Your task to perform on an android device: Turn off the flashlight Image 0: 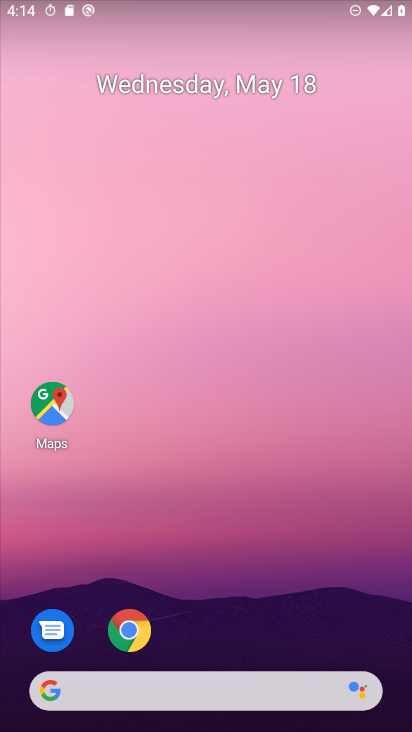
Step 0: press home button
Your task to perform on an android device: Turn off the flashlight Image 1: 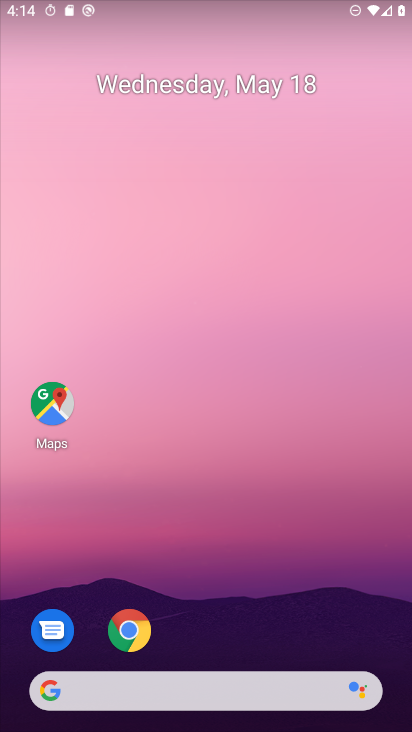
Step 1: drag from (223, 626) to (250, 97)
Your task to perform on an android device: Turn off the flashlight Image 2: 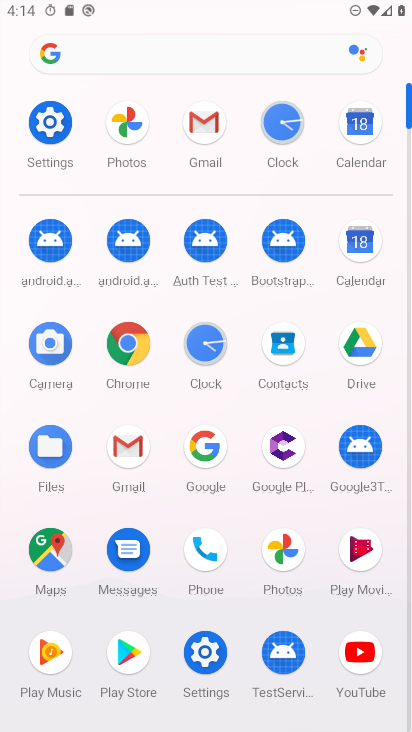
Step 2: click (201, 641)
Your task to perform on an android device: Turn off the flashlight Image 3: 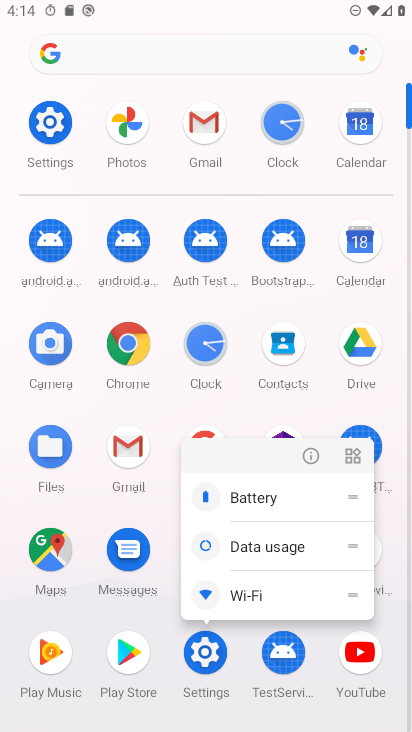
Step 3: click (201, 648)
Your task to perform on an android device: Turn off the flashlight Image 4: 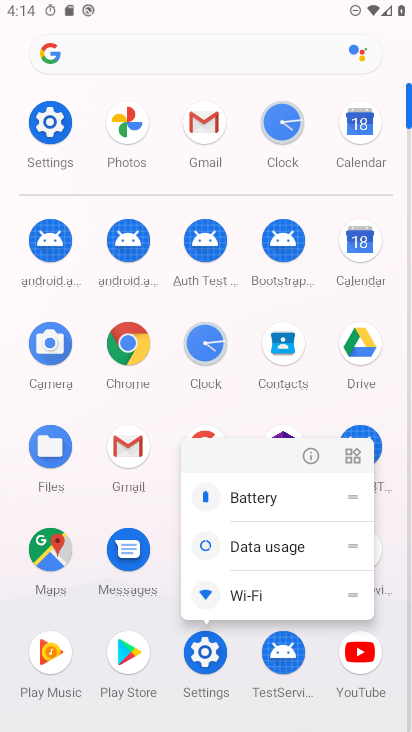
Step 4: click (200, 647)
Your task to perform on an android device: Turn off the flashlight Image 5: 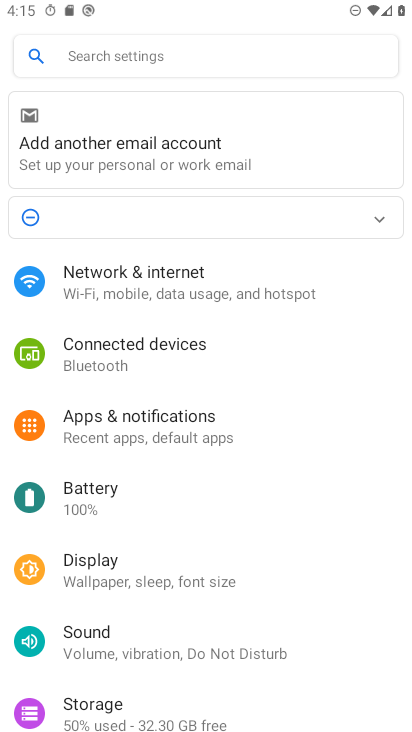
Step 5: click (134, 50)
Your task to perform on an android device: Turn off the flashlight Image 6: 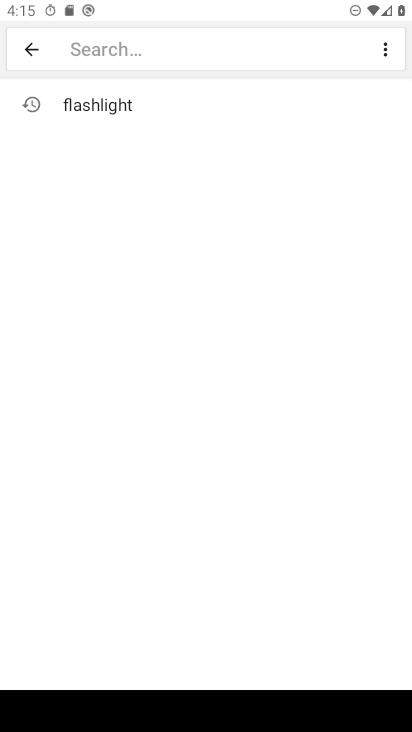
Step 6: click (120, 99)
Your task to perform on an android device: Turn off the flashlight Image 7: 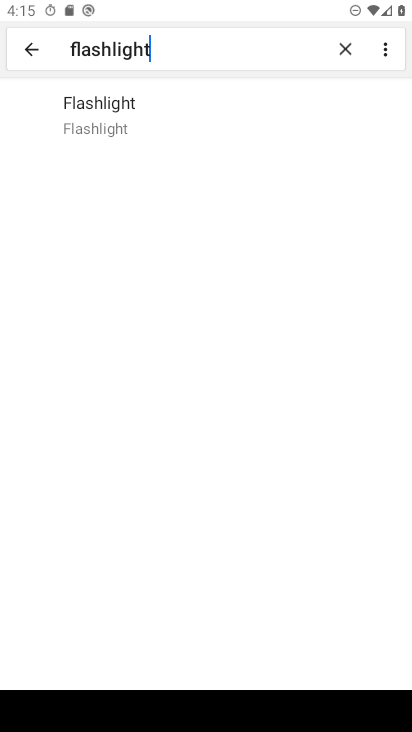
Step 7: click (151, 112)
Your task to perform on an android device: Turn off the flashlight Image 8: 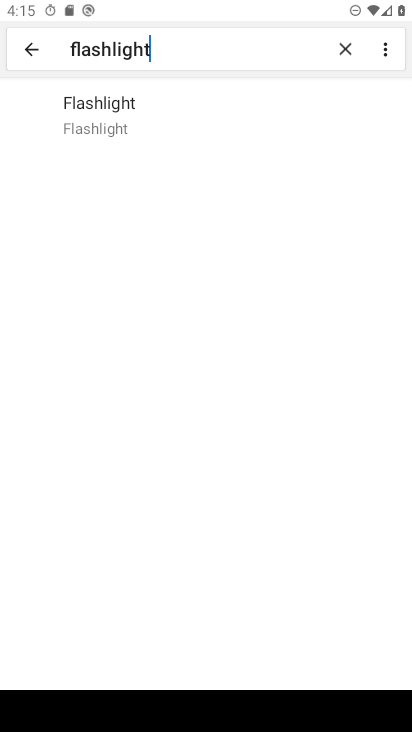
Step 8: click (117, 111)
Your task to perform on an android device: Turn off the flashlight Image 9: 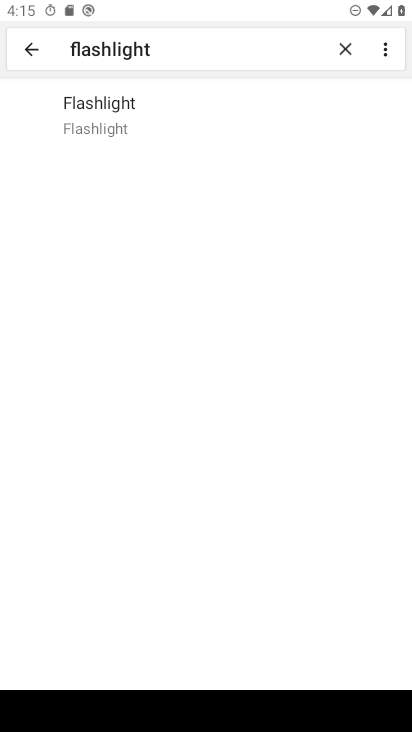
Step 9: task complete